Your task to perform on an android device: Go to Maps Image 0: 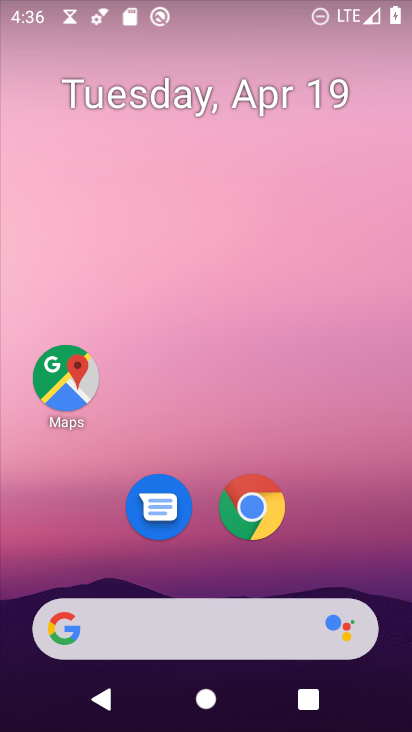
Step 0: drag from (313, 564) to (275, 53)
Your task to perform on an android device: Go to Maps Image 1: 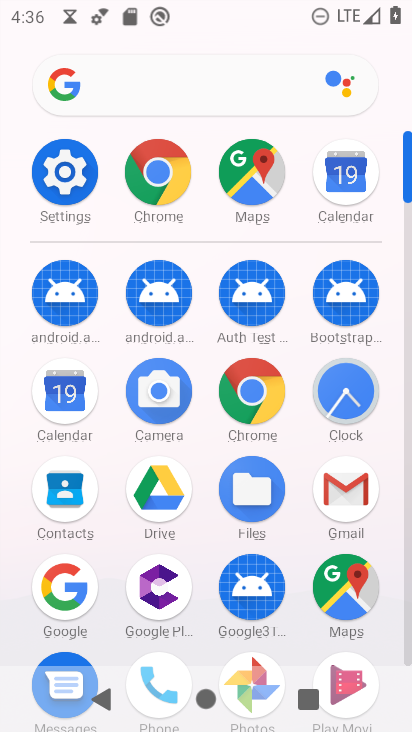
Step 1: click (333, 576)
Your task to perform on an android device: Go to Maps Image 2: 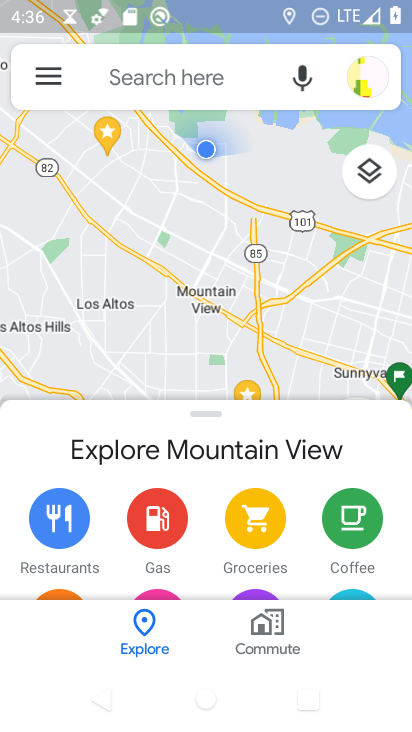
Step 2: task complete